Your task to perform on an android device: toggle notifications settings in the gmail app Image 0: 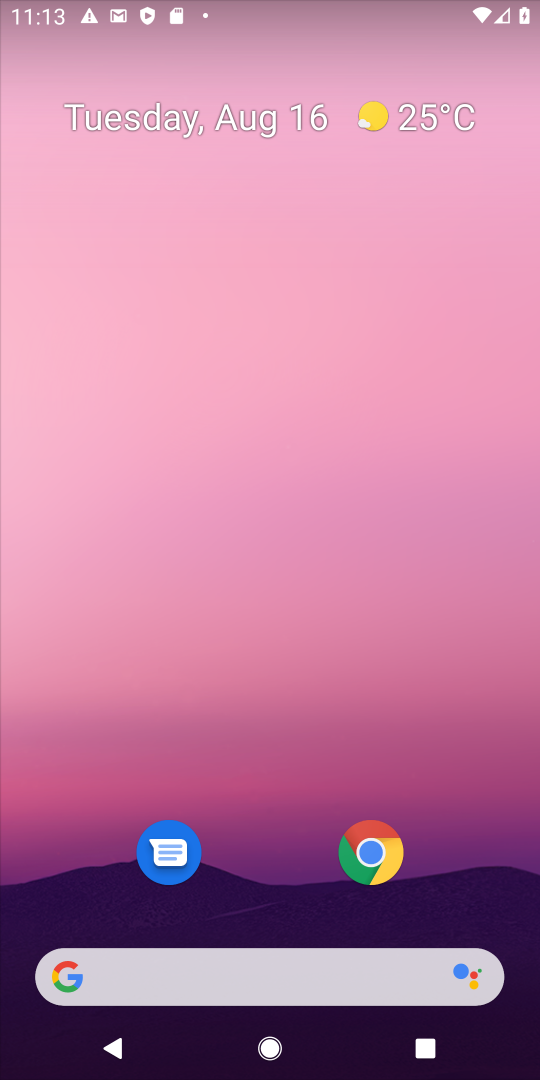
Step 0: drag from (261, 830) to (503, 243)
Your task to perform on an android device: toggle notifications settings in the gmail app Image 1: 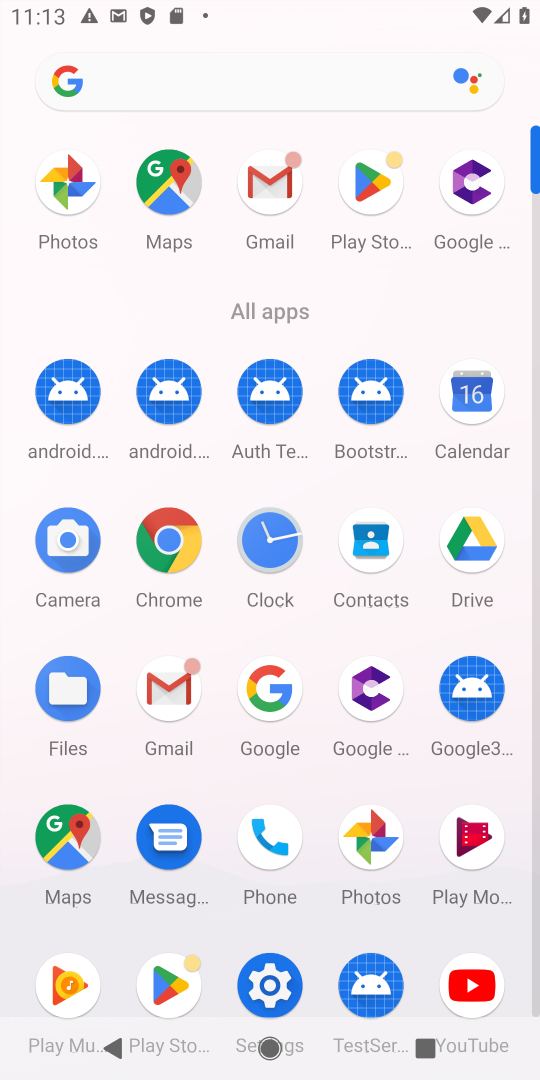
Step 1: click (261, 177)
Your task to perform on an android device: toggle notifications settings in the gmail app Image 2: 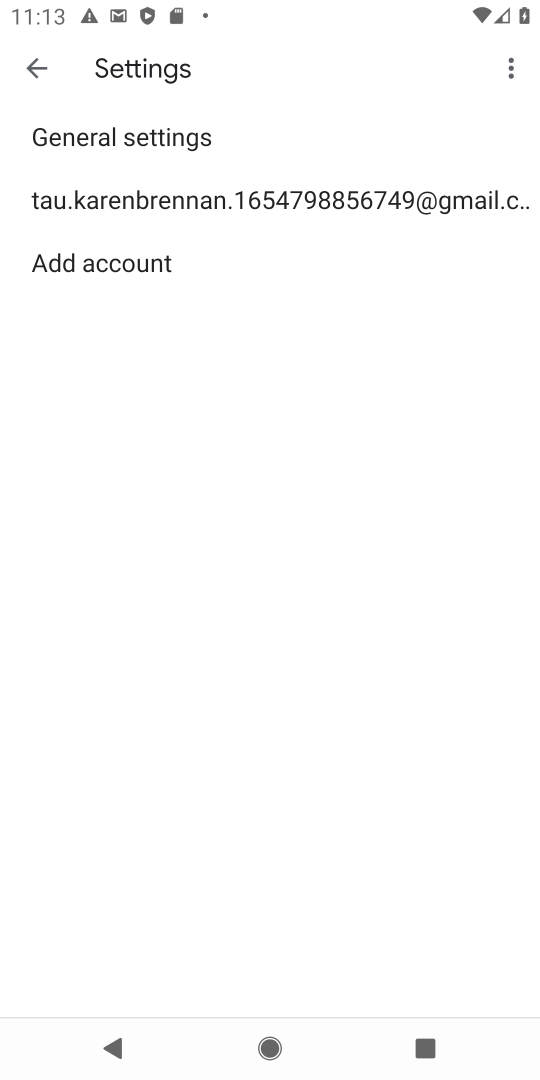
Step 2: task complete